Your task to perform on an android device: Search for sushi restaurants on Maps Image 0: 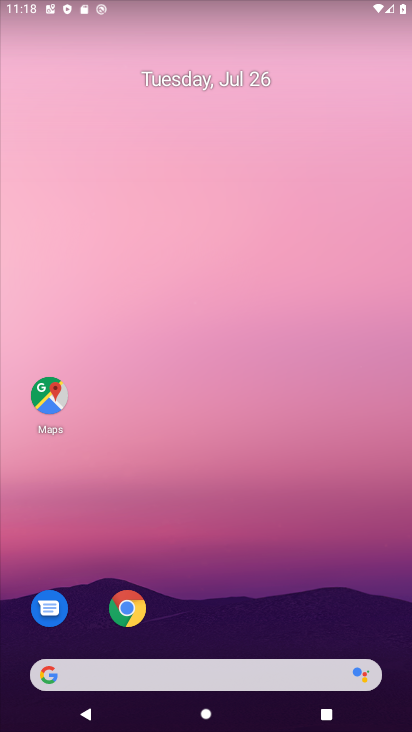
Step 0: click (38, 386)
Your task to perform on an android device: Search for sushi restaurants on Maps Image 1: 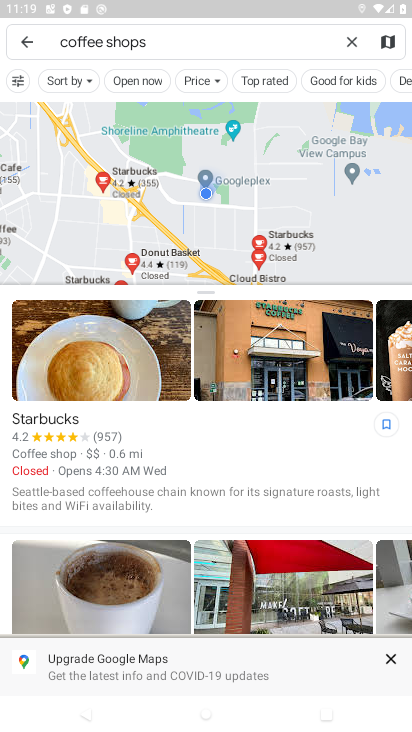
Step 1: click (270, 42)
Your task to perform on an android device: Search for sushi restaurants on Maps Image 2: 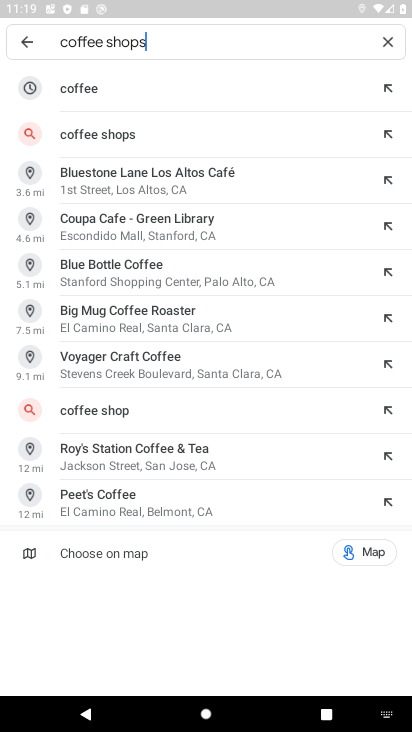
Step 2: click (393, 43)
Your task to perform on an android device: Search for sushi restaurants on Maps Image 3: 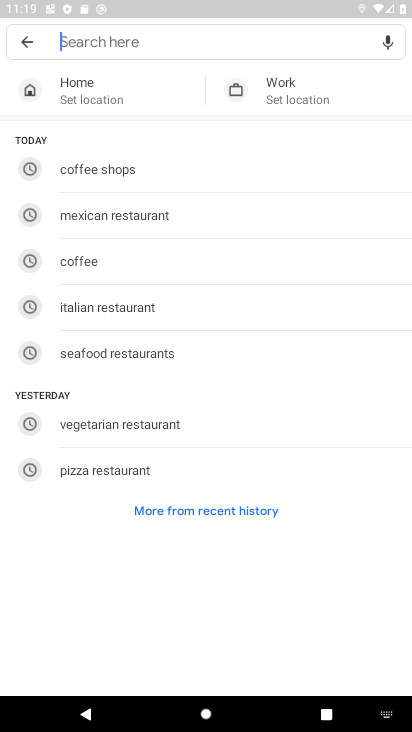
Step 3: type "sushi restaurants"
Your task to perform on an android device: Search for sushi restaurants on Maps Image 4: 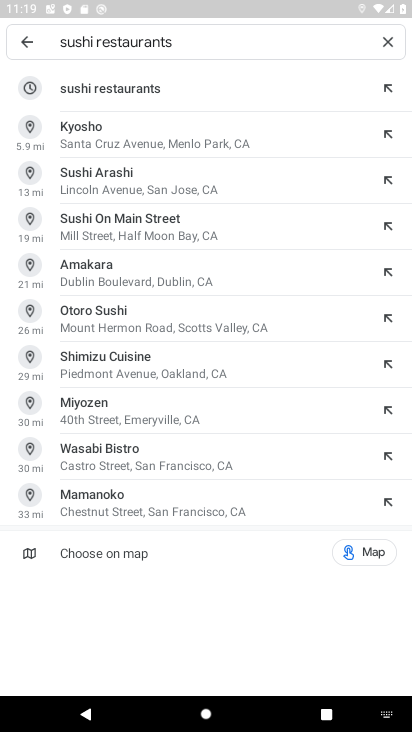
Step 4: click (195, 74)
Your task to perform on an android device: Search for sushi restaurants on Maps Image 5: 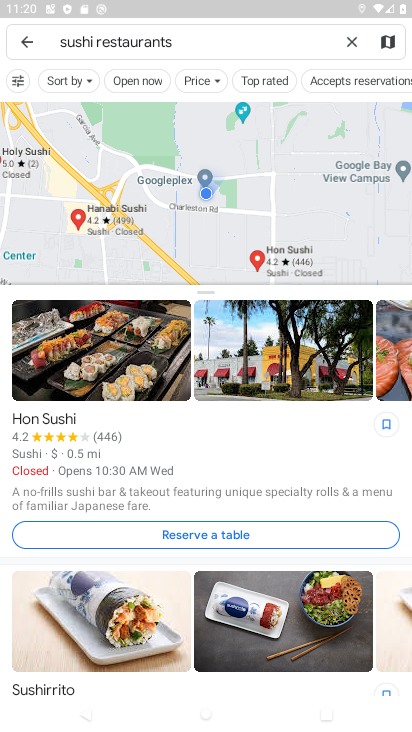
Step 5: task complete